Your task to perform on an android device: Open Google Image 0: 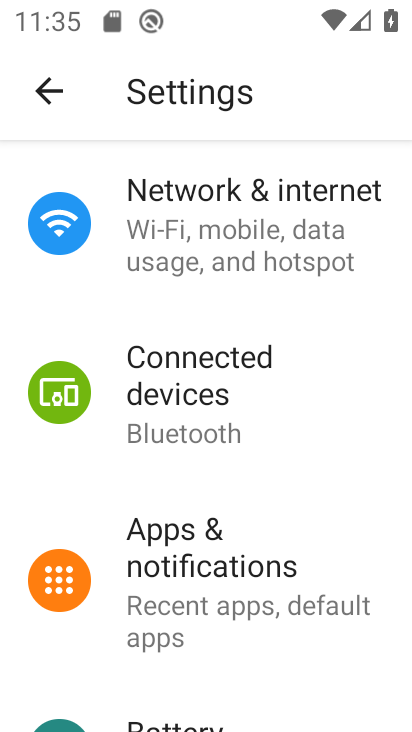
Step 0: press home button
Your task to perform on an android device: Open Google Image 1: 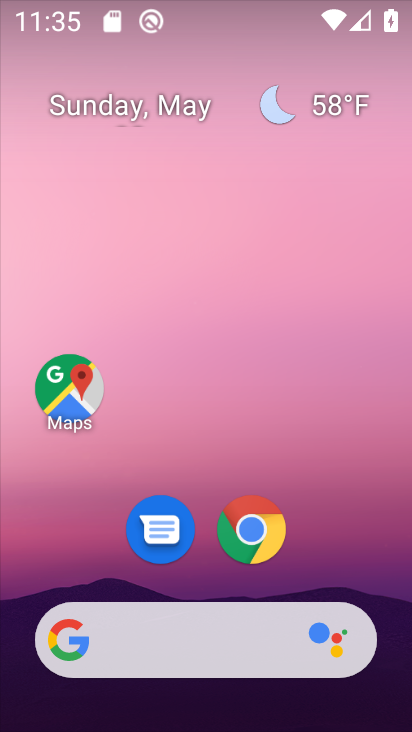
Step 1: drag from (195, 672) to (153, 97)
Your task to perform on an android device: Open Google Image 2: 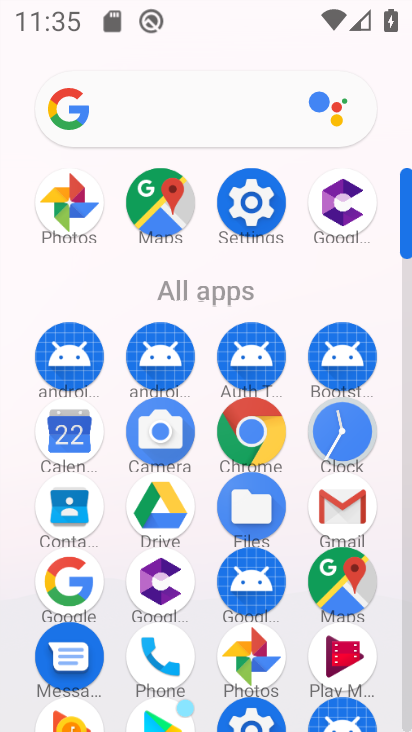
Step 2: click (65, 592)
Your task to perform on an android device: Open Google Image 3: 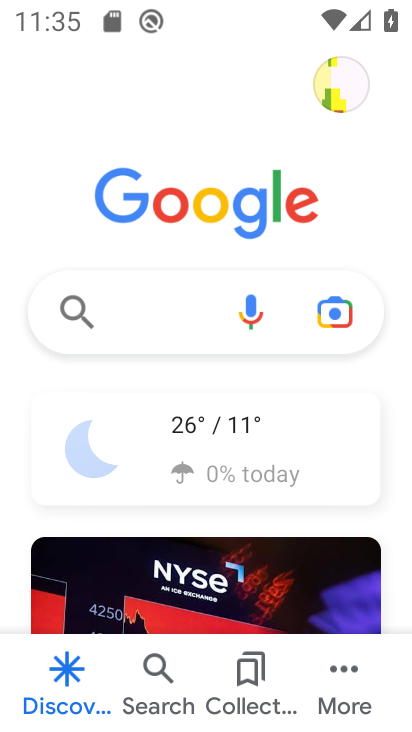
Step 3: task complete